Your task to perform on an android device: turn off improve location accuracy Image 0: 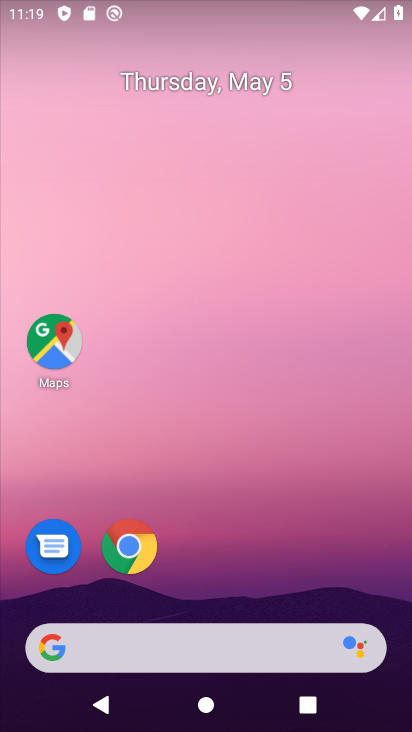
Step 0: drag from (196, 607) to (219, 25)
Your task to perform on an android device: turn off improve location accuracy Image 1: 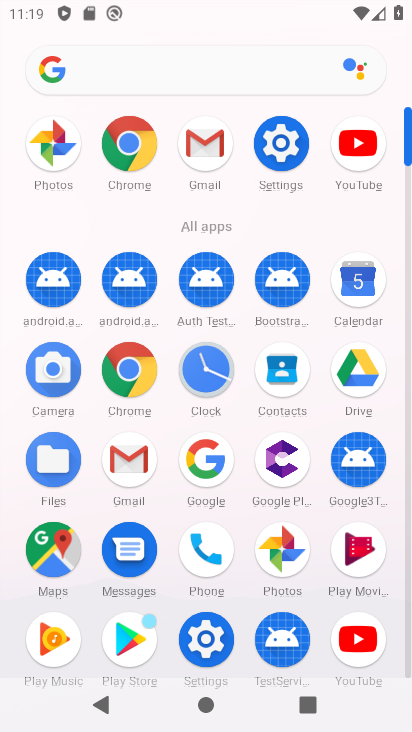
Step 1: click (264, 142)
Your task to perform on an android device: turn off improve location accuracy Image 2: 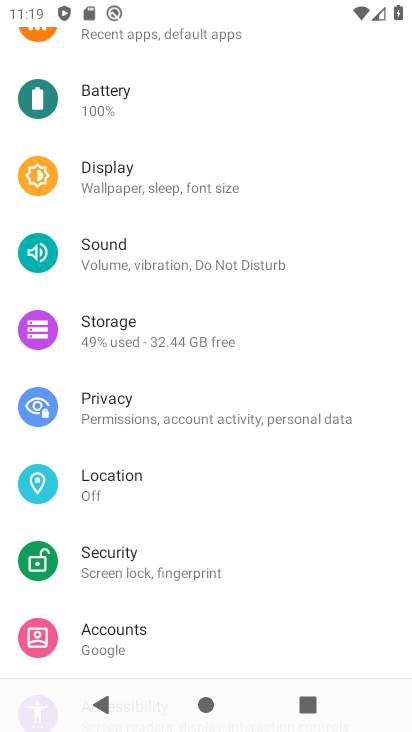
Step 2: click (136, 473)
Your task to perform on an android device: turn off improve location accuracy Image 3: 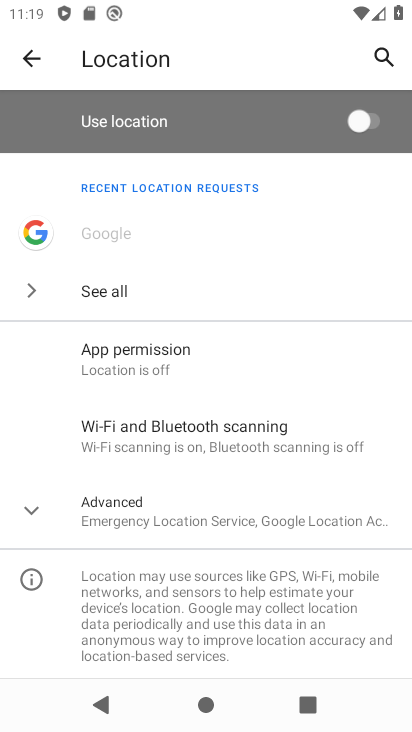
Step 3: click (120, 505)
Your task to perform on an android device: turn off improve location accuracy Image 4: 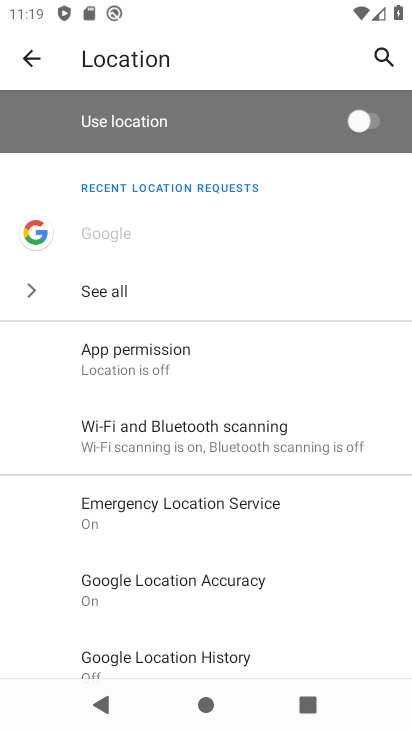
Step 4: click (224, 571)
Your task to perform on an android device: turn off improve location accuracy Image 5: 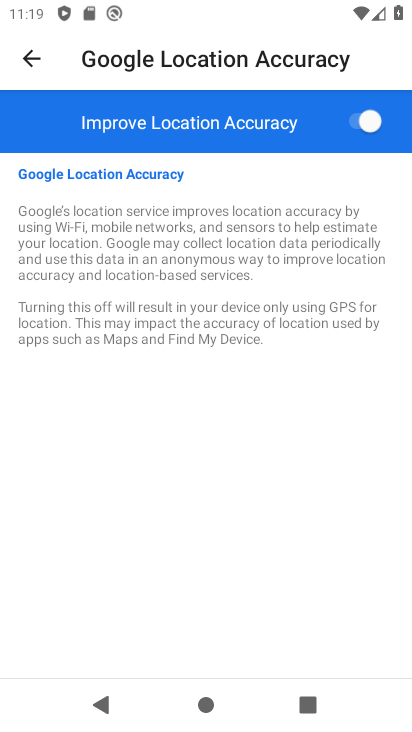
Step 5: click (375, 115)
Your task to perform on an android device: turn off improve location accuracy Image 6: 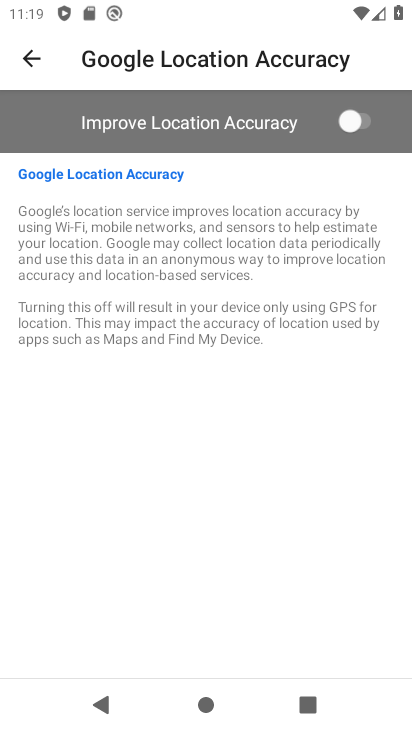
Step 6: task complete